Your task to perform on an android device: turn on wifi Image 0: 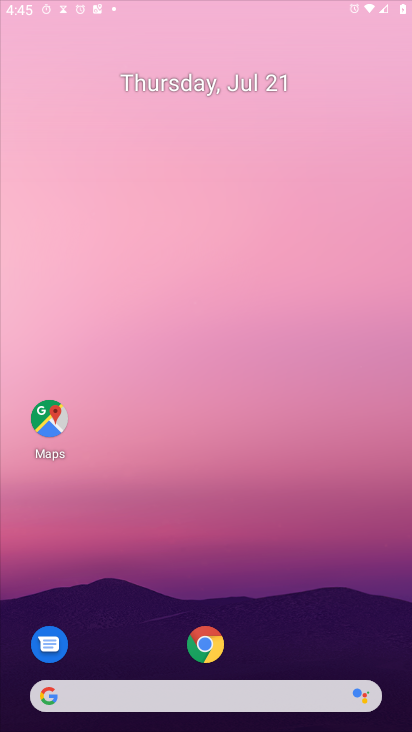
Step 0: press home button
Your task to perform on an android device: turn on wifi Image 1: 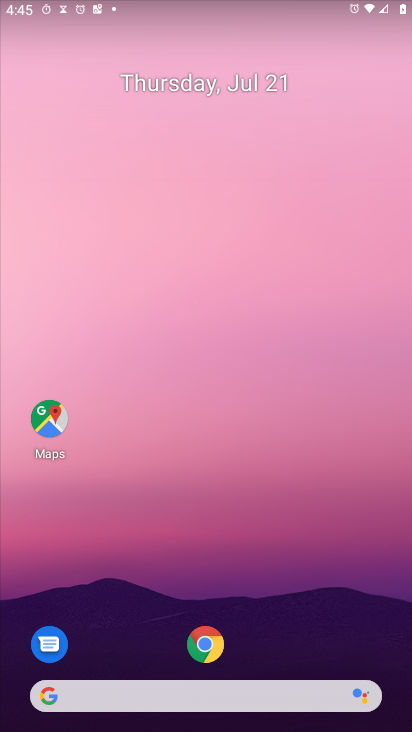
Step 1: task complete